Your task to perform on an android device: Go to ESPN.com Image 0: 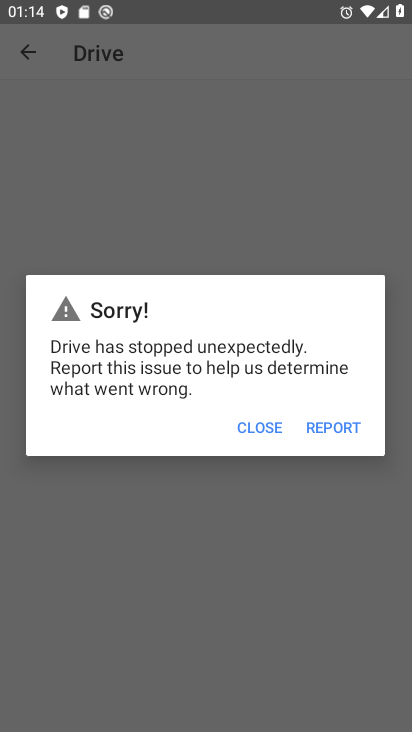
Step 0: press home button
Your task to perform on an android device: Go to ESPN.com Image 1: 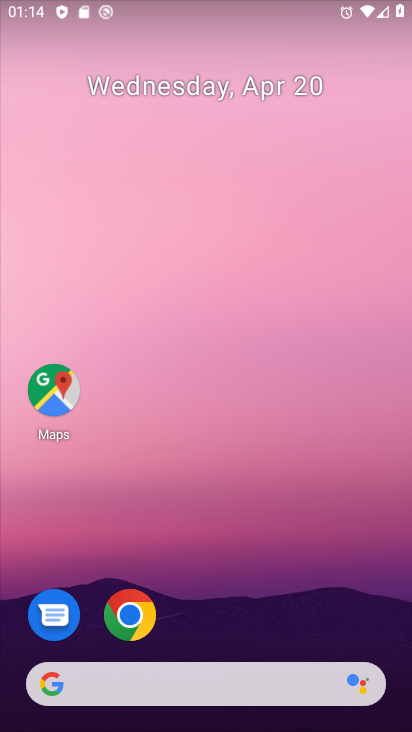
Step 1: click (143, 613)
Your task to perform on an android device: Go to ESPN.com Image 2: 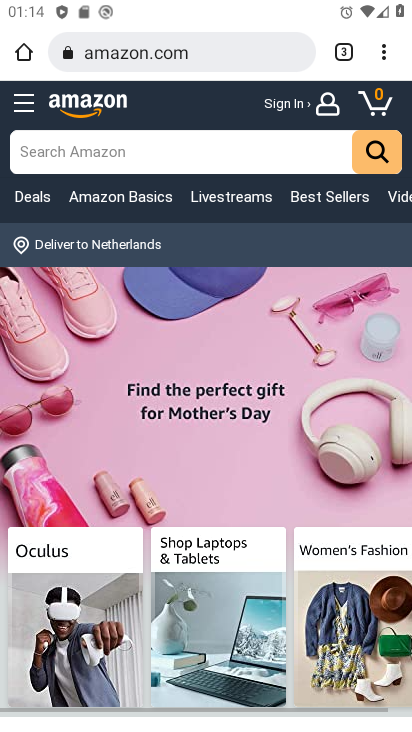
Step 2: click (195, 54)
Your task to perform on an android device: Go to ESPN.com Image 3: 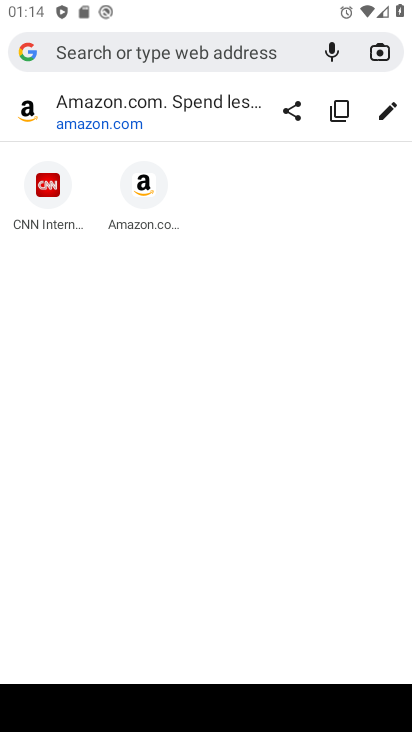
Step 3: type "ESPN.com"
Your task to perform on an android device: Go to ESPN.com Image 4: 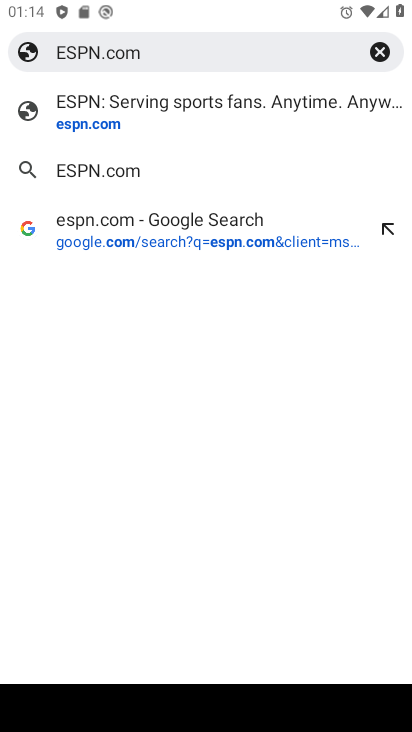
Step 4: click (90, 118)
Your task to perform on an android device: Go to ESPN.com Image 5: 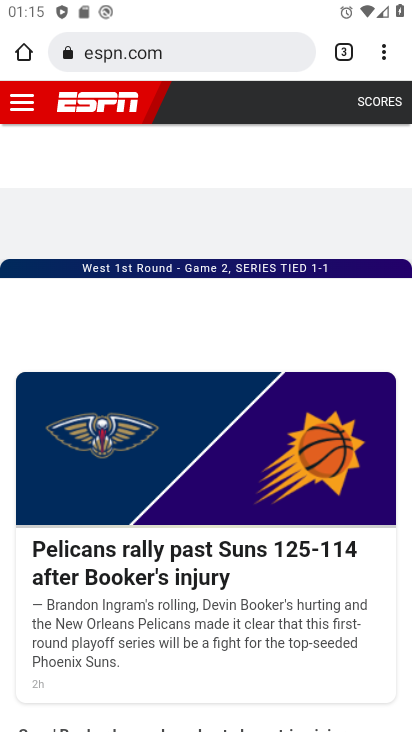
Step 5: task complete